Your task to perform on an android device: Go to CNN.com Image 0: 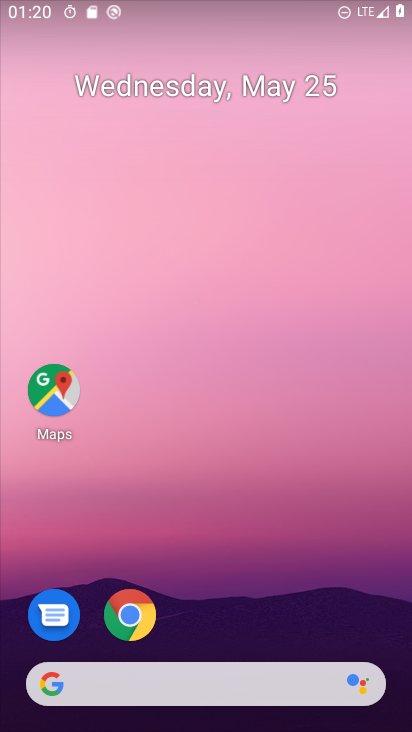
Step 0: press home button
Your task to perform on an android device: Go to CNN.com Image 1: 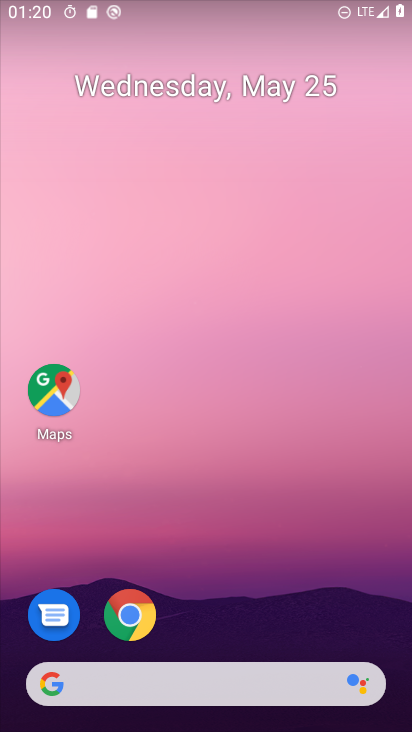
Step 1: drag from (252, 707) to (277, 26)
Your task to perform on an android device: Go to CNN.com Image 2: 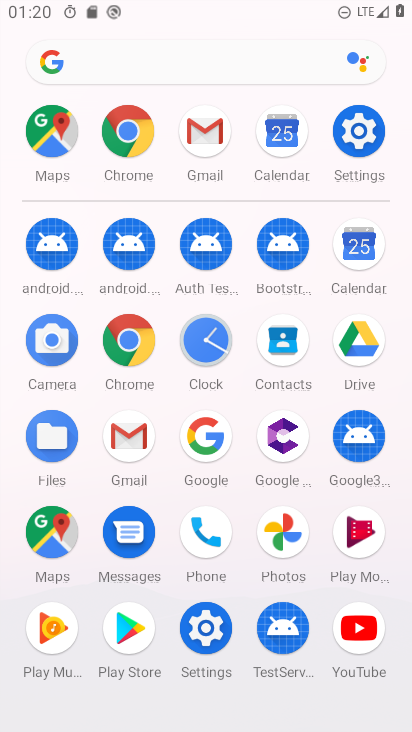
Step 2: click (118, 124)
Your task to perform on an android device: Go to CNN.com Image 3: 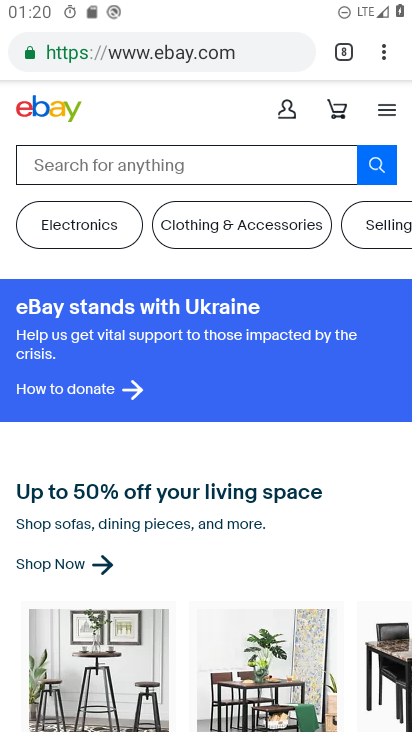
Step 3: click (169, 56)
Your task to perform on an android device: Go to CNN.com Image 4: 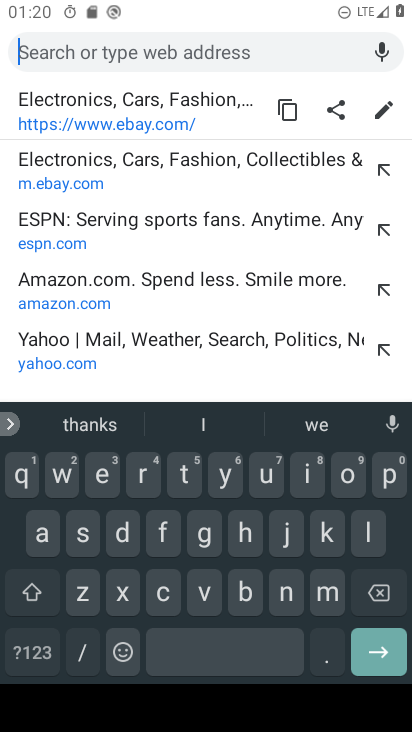
Step 4: click (165, 594)
Your task to perform on an android device: Go to CNN.com Image 5: 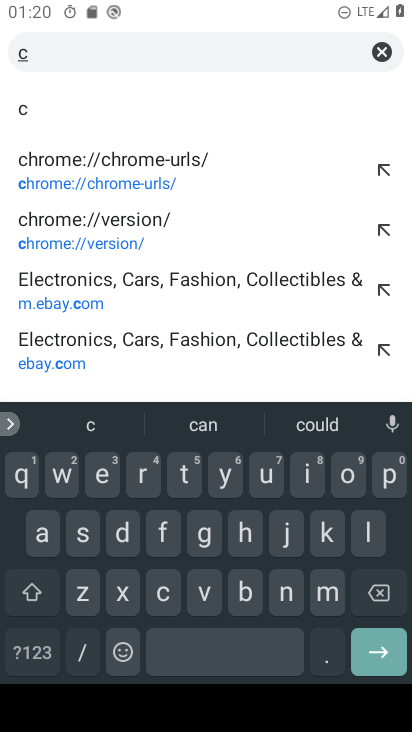
Step 5: click (288, 593)
Your task to perform on an android device: Go to CNN.com Image 6: 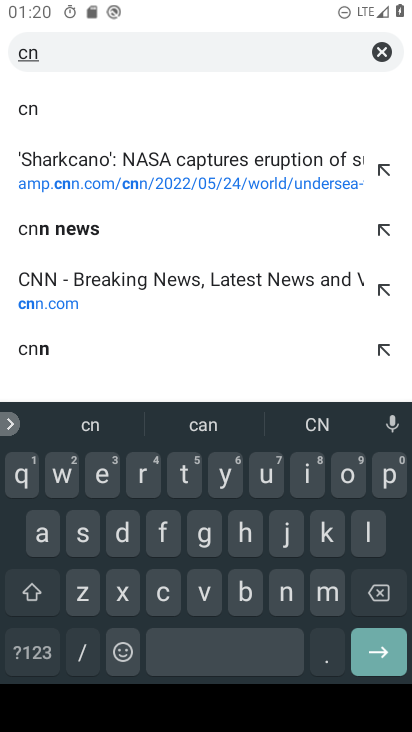
Step 6: click (291, 595)
Your task to perform on an android device: Go to CNN.com Image 7: 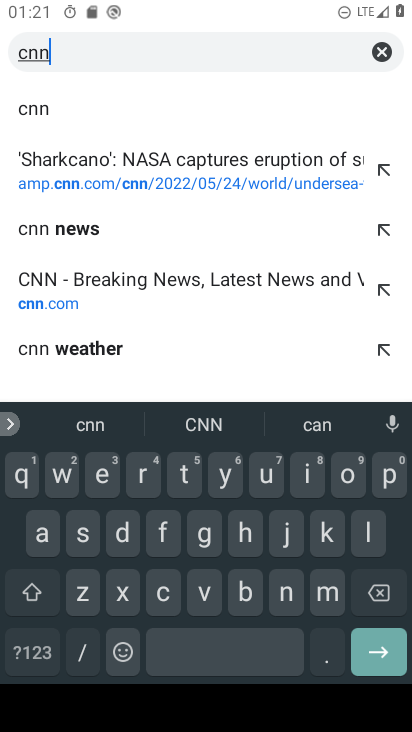
Step 7: click (331, 665)
Your task to perform on an android device: Go to CNN.com Image 8: 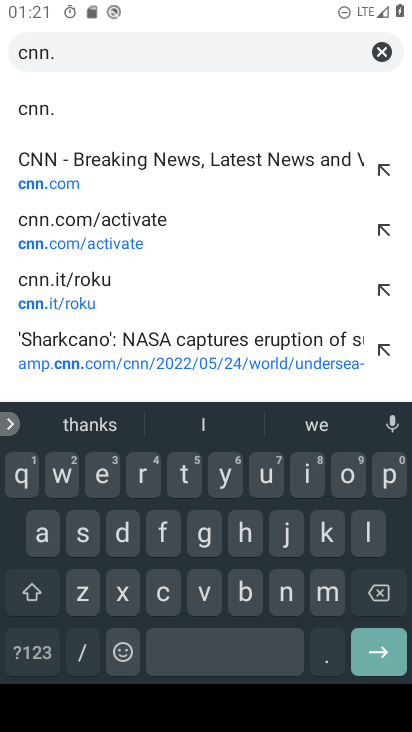
Step 8: click (164, 595)
Your task to perform on an android device: Go to CNN.com Image 9: 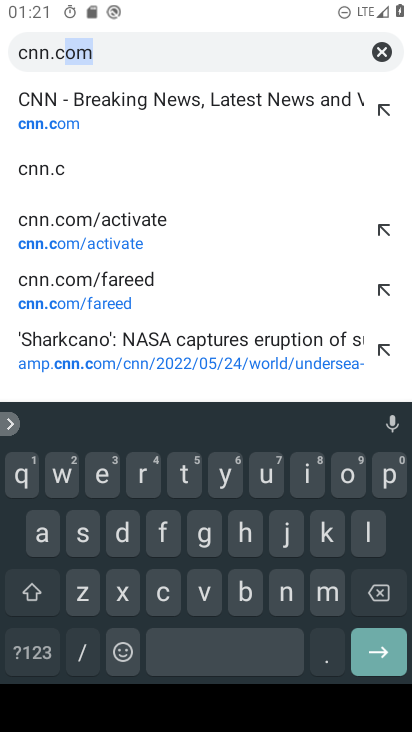
Step 9: click (345, 487)
Your task to perform on an android device: Go to CNN.com Image 10: 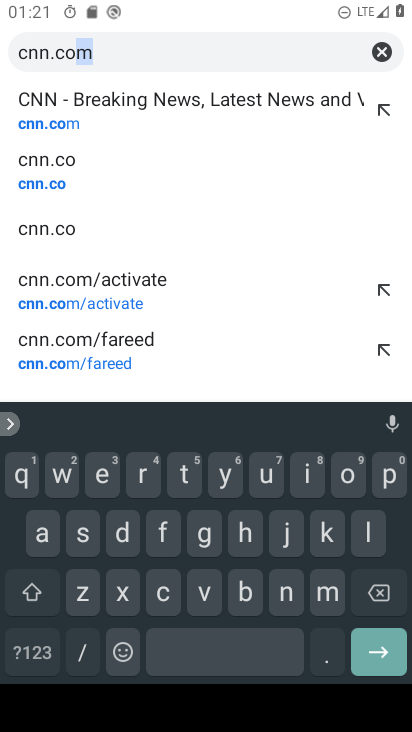
Step 10: click (123, 51)
Your task to perform on an android device: Go to CNN.com Image 11: 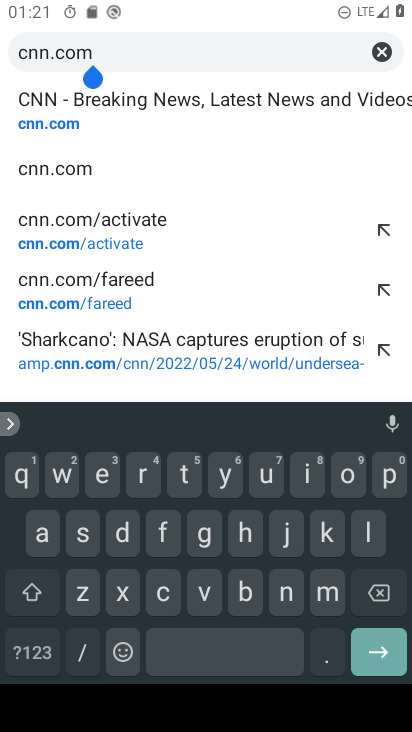
Step 11: click (378, 655)
Your task to perform on an android device: Go to CNN.com Image 12: 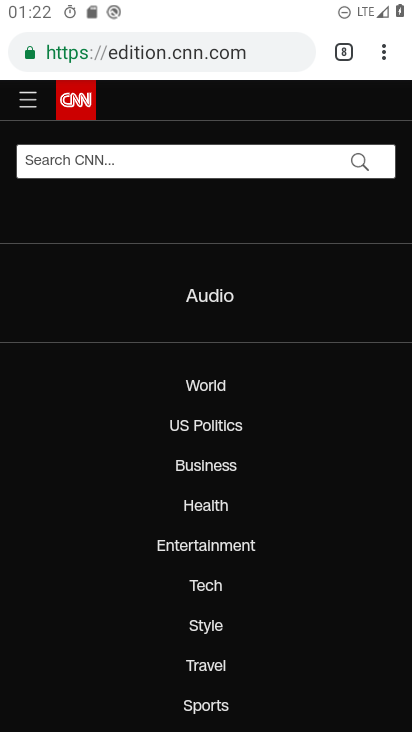
Step 12: task complete